Your task to perform on an android device: change the upload size in google photos Image 0: 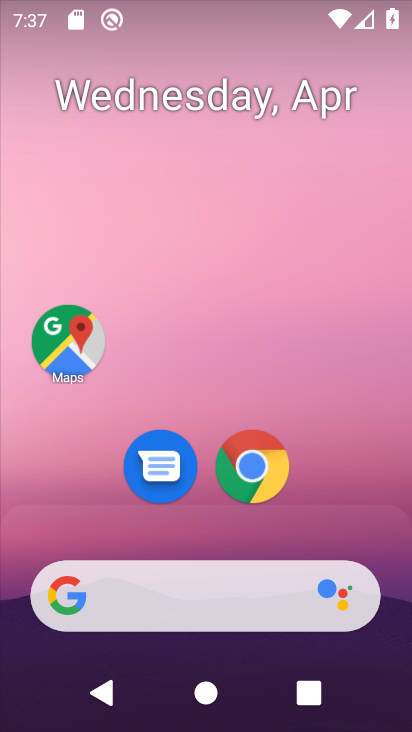
Step 0: drag from (313, 389) to (321, 162)
Your task to perform on an android device: change the upload size in google photos Image 1: 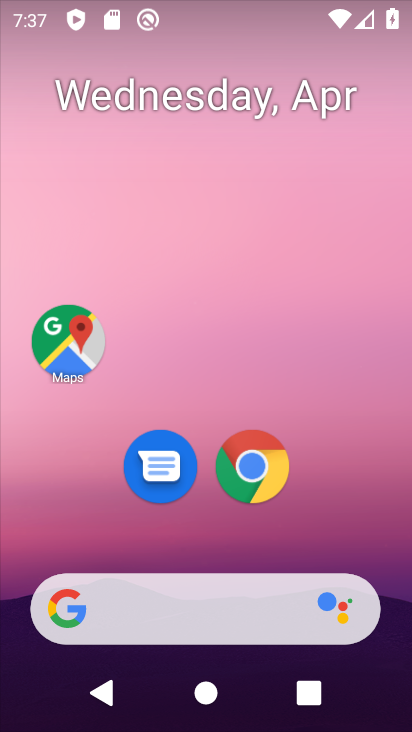
Step 1: drag from (232, 40) to (238, 3)
Your task to perform on an android device: change the upload size in google photos Image 2: 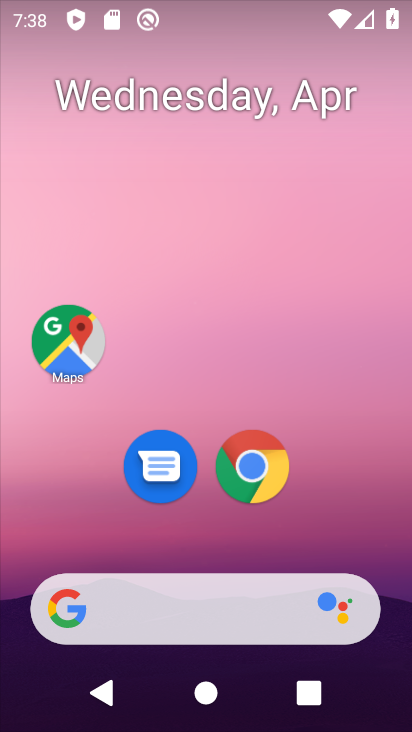
Step 2: drag from (303, 540) to (222, 9)
Your task to perform on an android device: change the upload size in google photos Image 3: 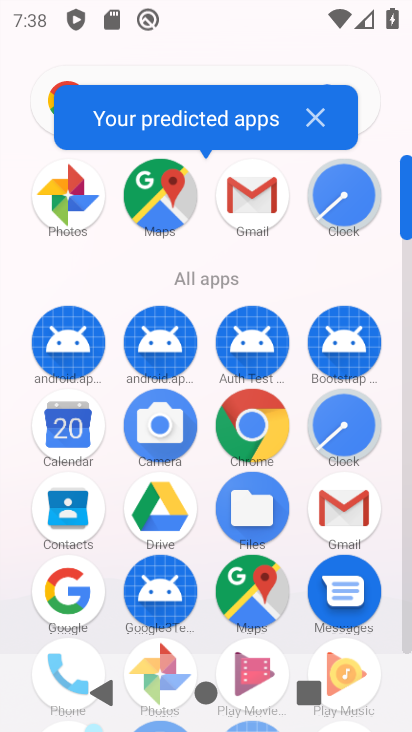
Step 3: click (69, 219)
Your task to perform on an android device: change the upload size in google photos Image 4: 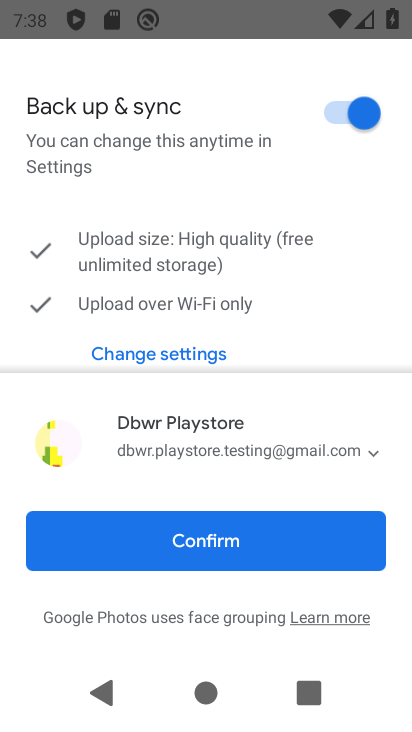
Step 4: click (203, 548)
Your task to perform on an android device: change the upload size in google photos Image 5: 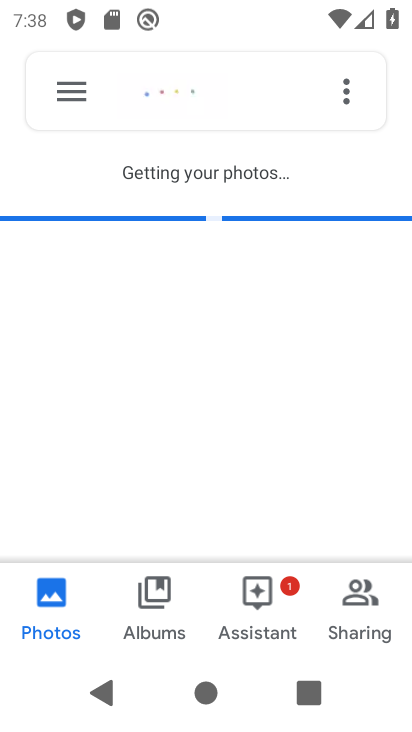
Step 5: click (74, 99)
Your task to perform on an android device: change the upload size in google photos Image 6: 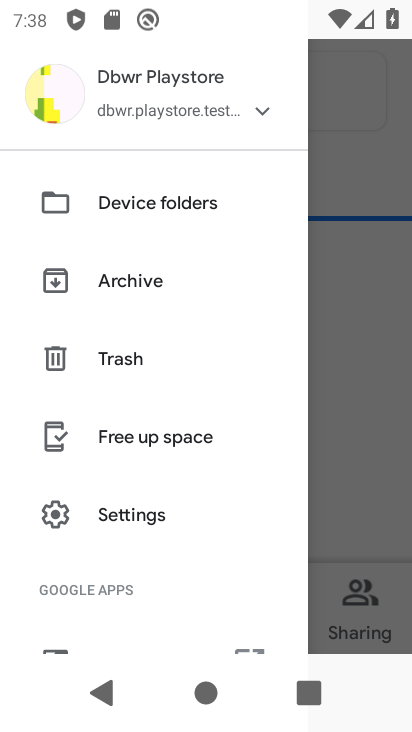
Step 6: click (141, 512)
Your task to perform on an android device: change the upload size in google photos Image 7: 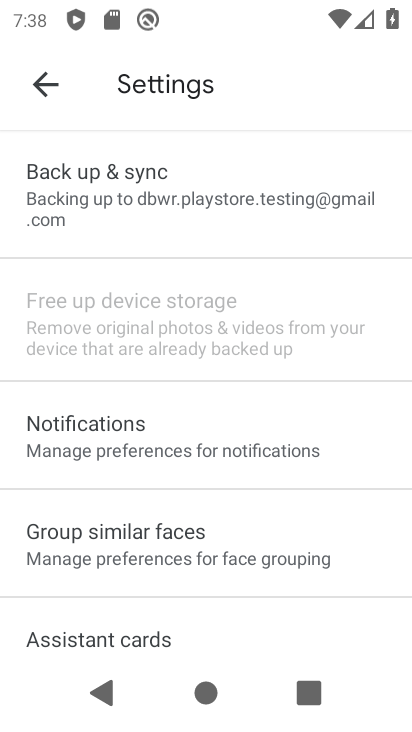
Step 7: click (152, 195)
Your task to perform on an android device: change the upload size in google photos Image 8: 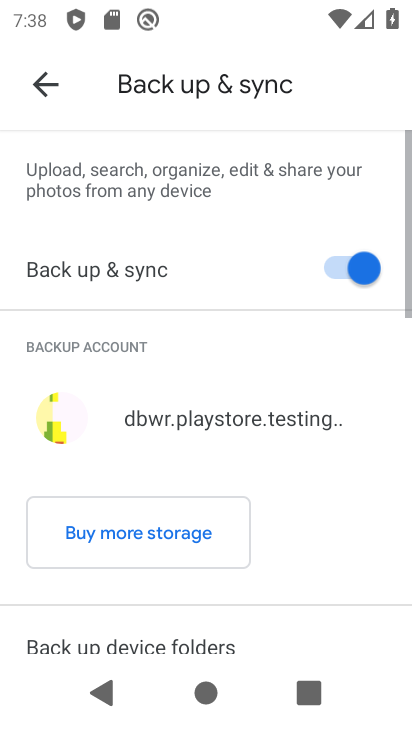
Step 8: drag from (240, 490) to (311, 238)
Your task to perform on an android device: change the upload size in google photos Image 9: 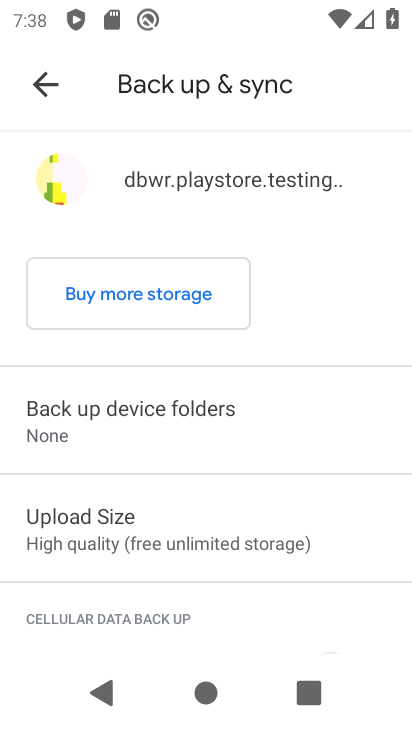
Step 9: click (106, 553)
Your task to perform on an android device: change the upload size in google photos Image 10: 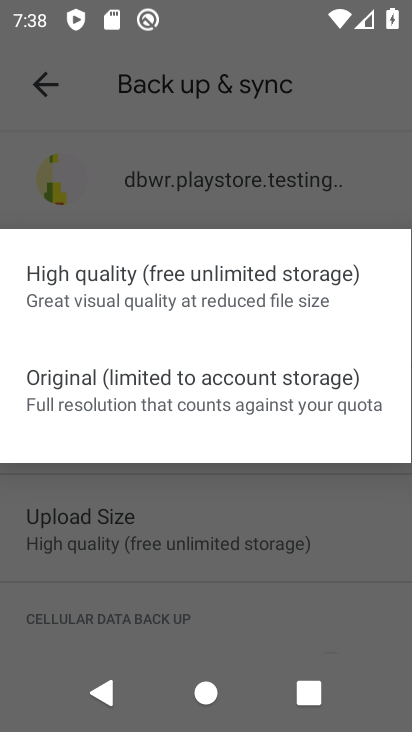
Step 10: click (199, 411)
Your task to perform on an android device: change the upload size in google photos Image 11: 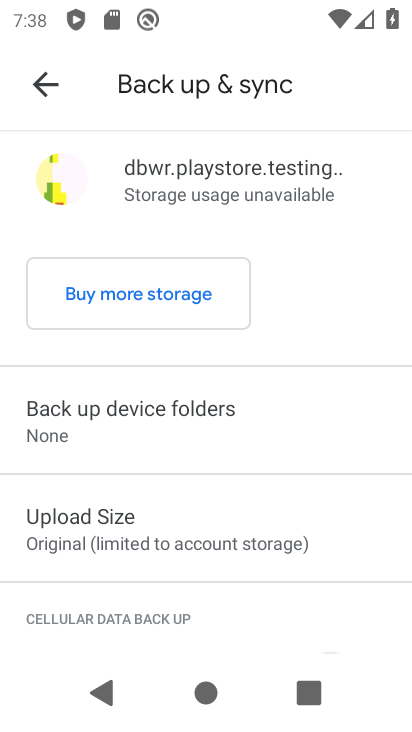
Step 11: task complete